Your task to perform on an android device: change the clock style Image 0: 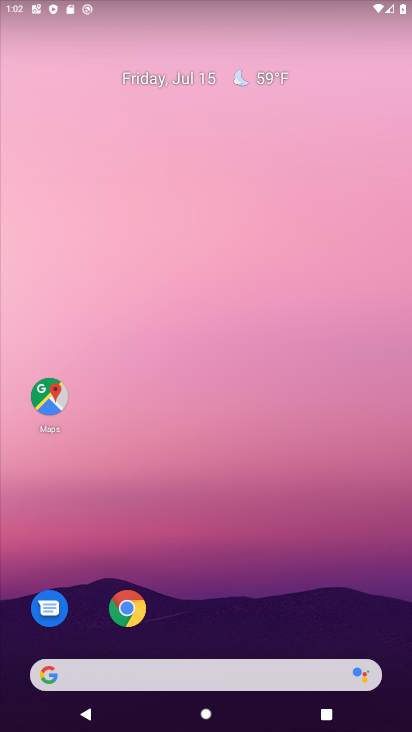
Step 0: drag from (212, 660) to (204, 284)
Your task to perform on an android device: change the clock style Image 1: 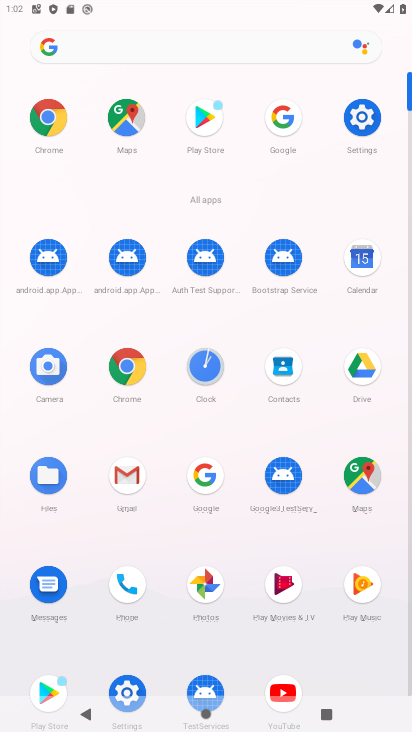
Step 1: click (215, 361)
Your task to perform on an android device: change the clock style Image 2: 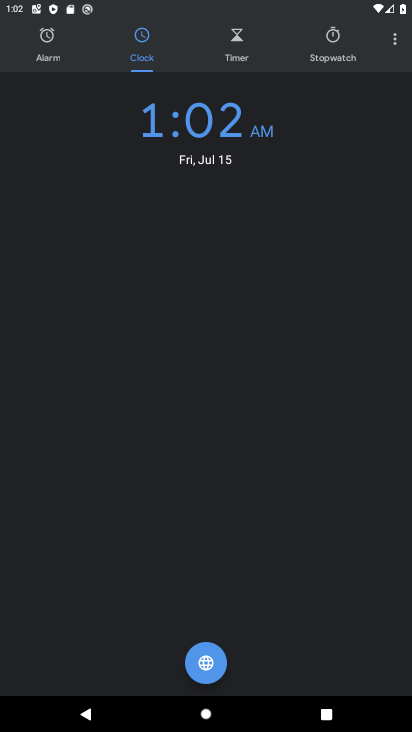
Step 2: click (395, 43)
Your task to perform on an android device: change the clock style Image 3: 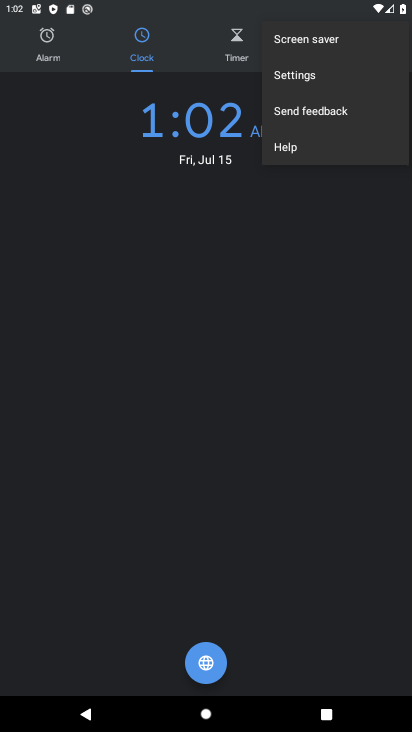
Step 3: click (285, 71)
Your task to perform on an android device: change the clock style Image 4: 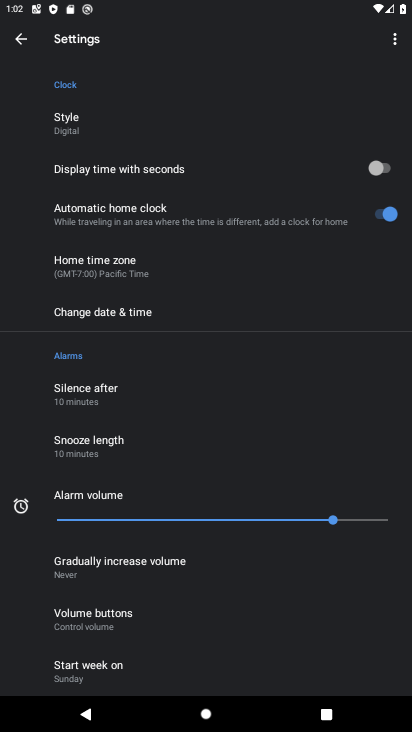
Step 4: click (67, 126)
Your task to perform on an android device: change the clock style Image 5: 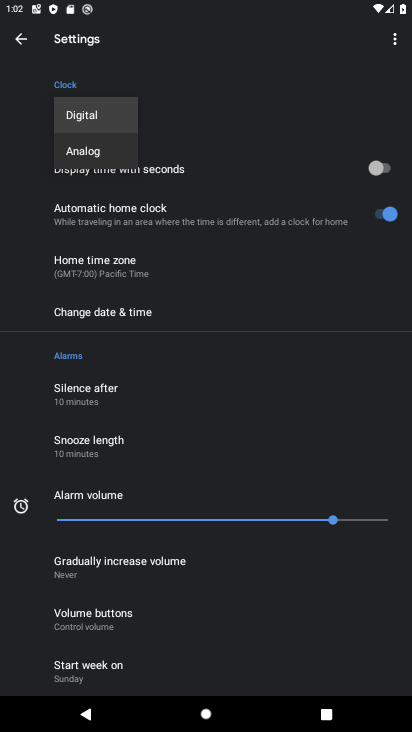
Step 5: click (101, 146)
Your task to perform on an android device: change the clock style Image 6: 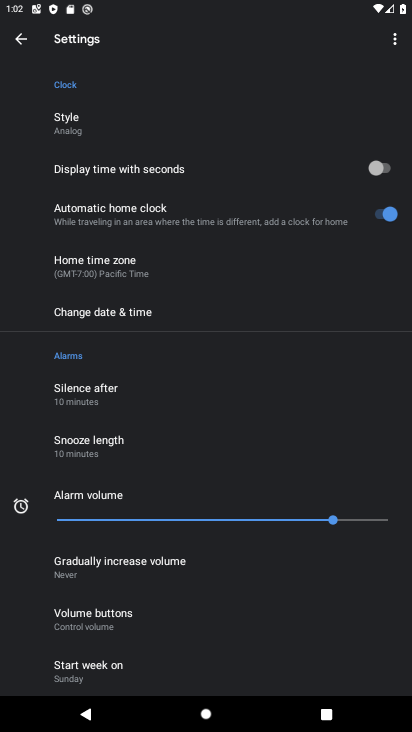
Step 6: task complete